Your task to perform on an android device: turn smart compose on in the gmail app Image 0: 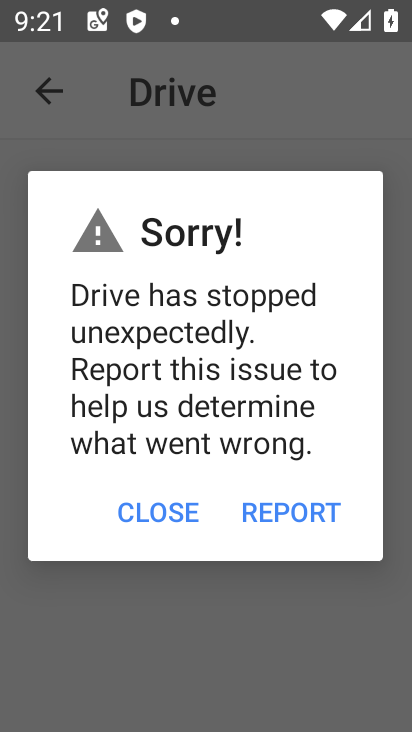
Step 0: press home button
Your task to perform on an android device: turn smart compose on in the gmail app Image 1: 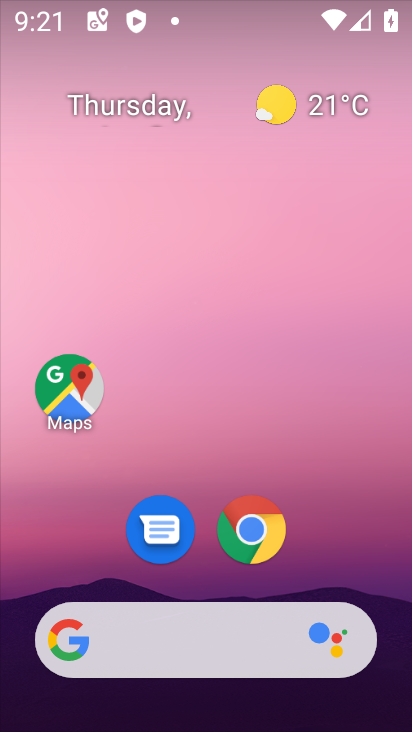
Step 1: drag from (214, 707) to (211, 3)
Your task to perform on an android device: turn smart compose on in the gmail app Image 2: 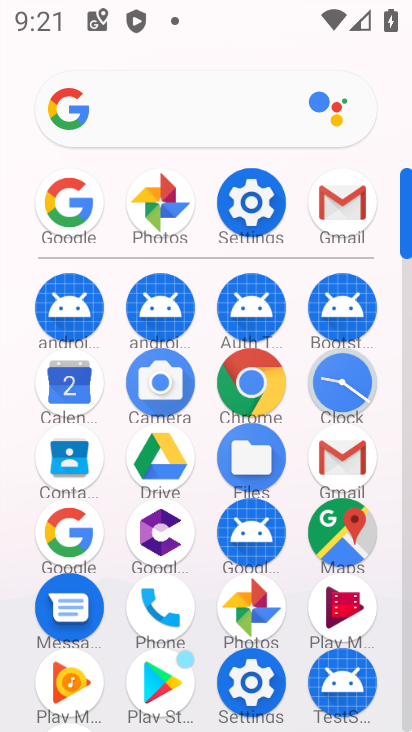
Step 2: click (341, 202)
Your task to perform on an android device: turn smart compose on in the gmail app Image 3: 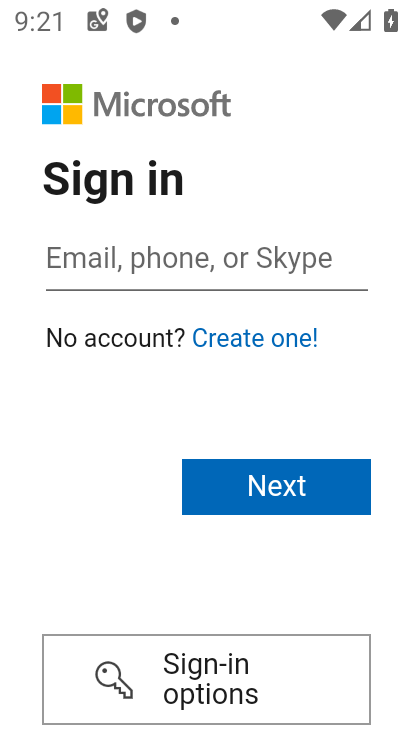
Step 3: press back button
Your task to perform on an android device: turn smart compose on in the gmail app Image 4: 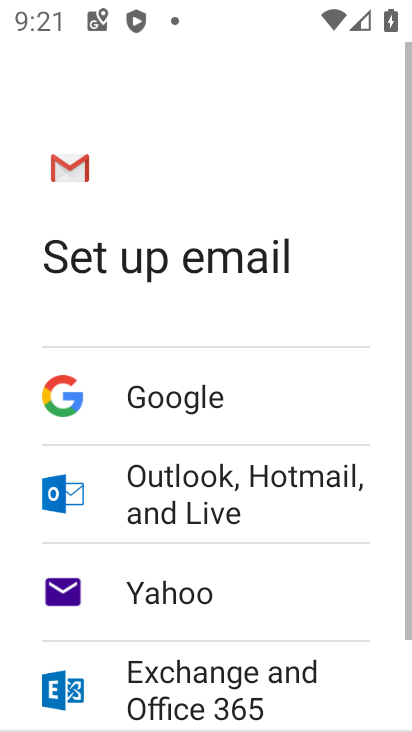
Step 4: press back button
Your task to perform on an android device: turn smart compose on in the gmail app Image 5: 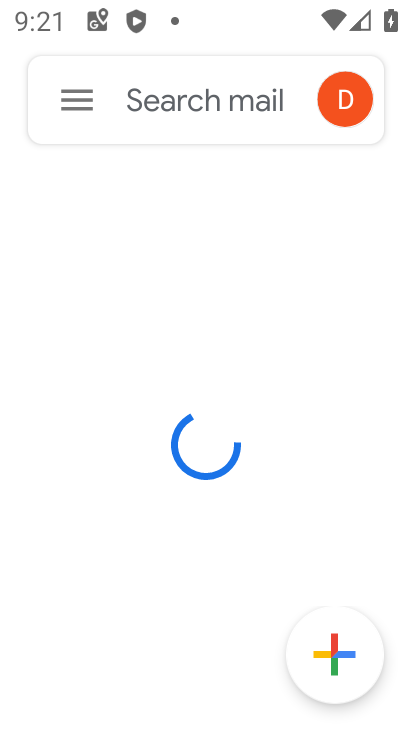
Step 5: click (74, 96)
Your task to perform on an android device: turn smart compose on in the gmail app Image 6: 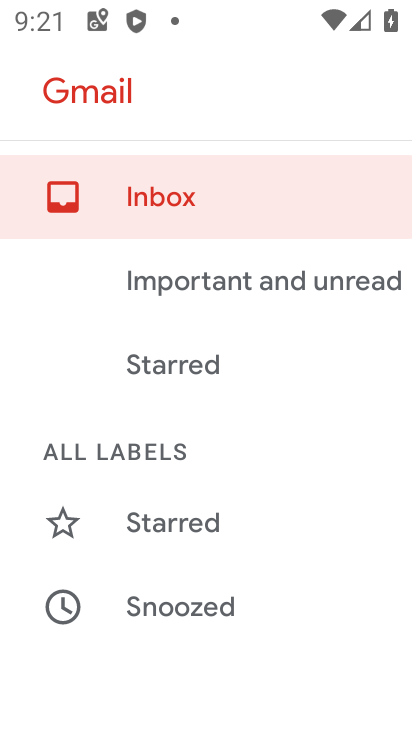
Step 6: drag from (234, 688) to (335, 9)
Your task to perform on an android device: turn smart compose on in the gmail app Image 7: 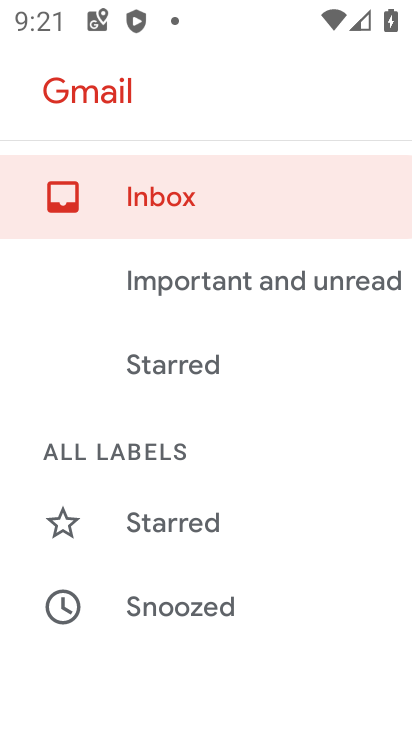
Step 7: drag from (201, 642) to (295, 64)
Your task to perform on an android device: turn smart compose on in the gmail app Image 8: 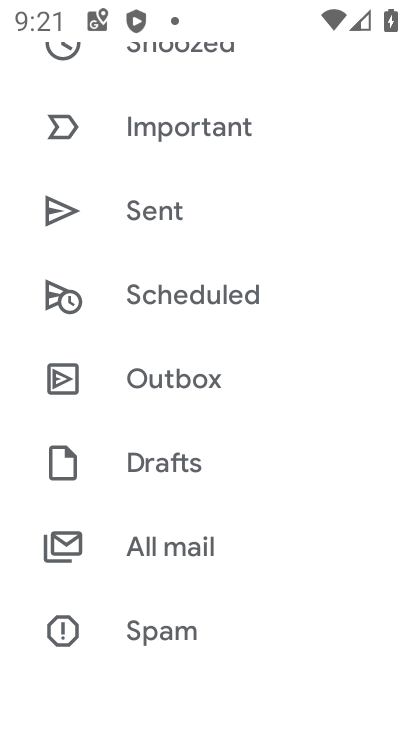
Step 8: drag from (179, 537) to (335, 52)
Your task to perform on an android device: turn smart compose on in the gmail app Image 9: 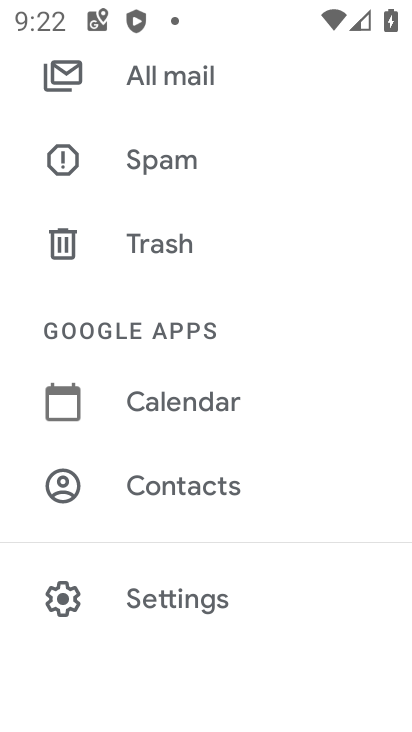
Step 9: click (157, 592)
Your task to perform on an android device: turn smart compose on in the gmail app Image 10: 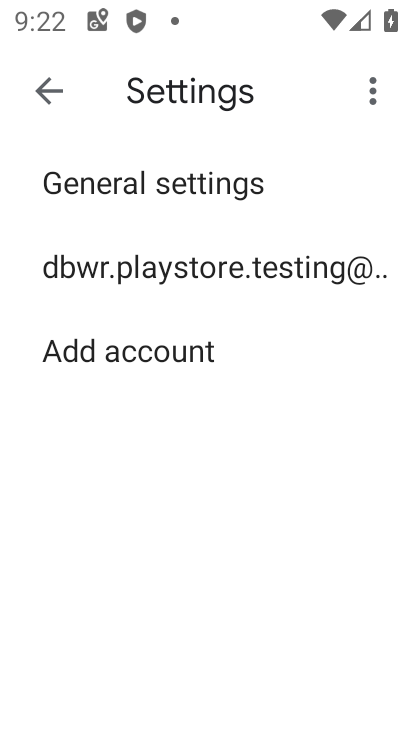
Step 10: click (180, 269)
Your task to perform on an android device: turn smart compose on in the gmail app Image 11: 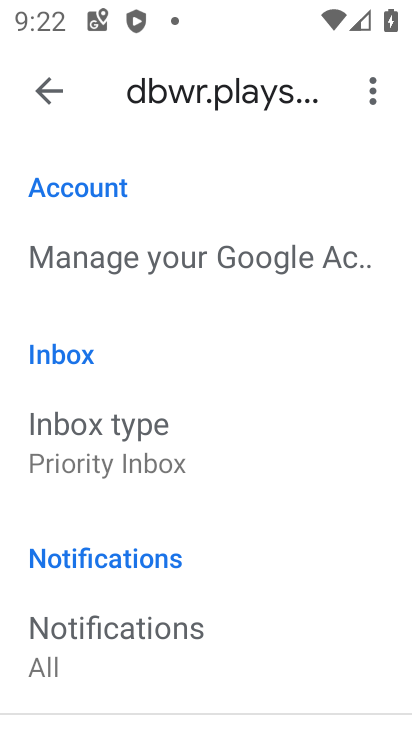
Step 11: task complete